Your task to perform on an android device: Show me popular videos on Youtube Image 0: 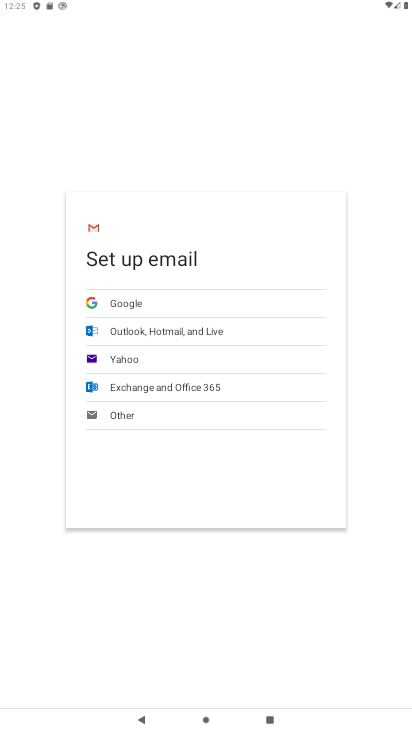
Step 0: press home button
Your task to perform on an android device: Show me popular videos on Youtube Image 1: 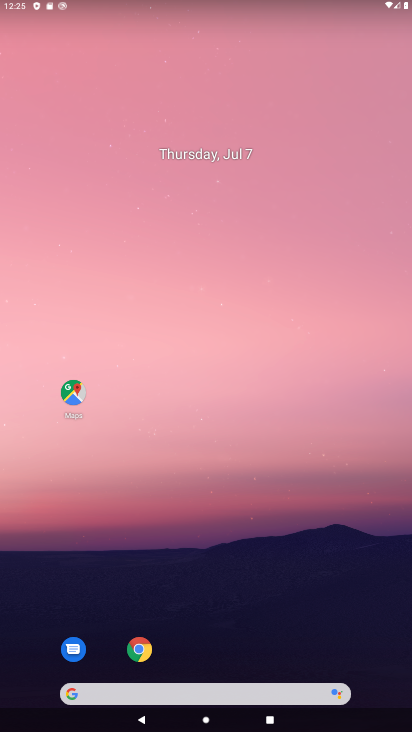
Step 1: drag from (193, 629) to (126, 139)
Your task to perform on an android device: Show me popular videos on Youtube Image 2: 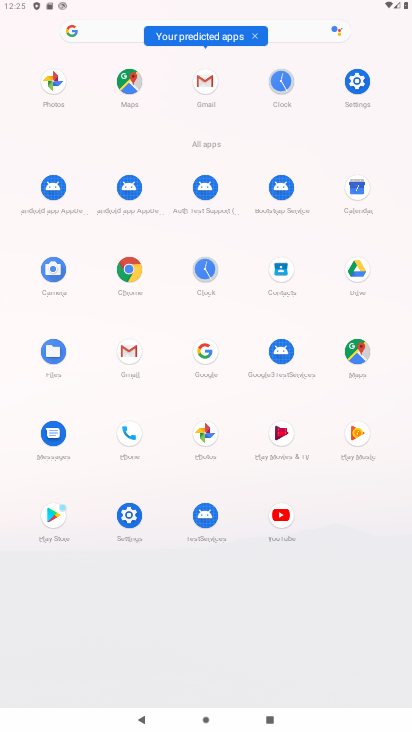
Step 2: click (282, 517)
Your task to perform on an android device: Show me popular videos on Youtube Image 3: 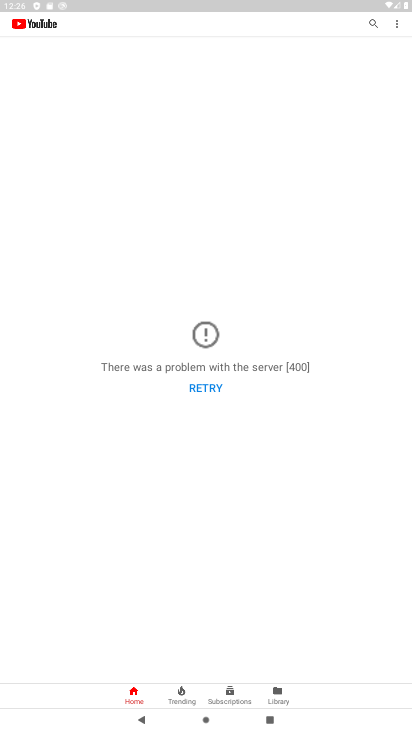
Step 3: click (192, 699)
Your task to perform on an android device: Show me popular videos on Youtube Image 4: 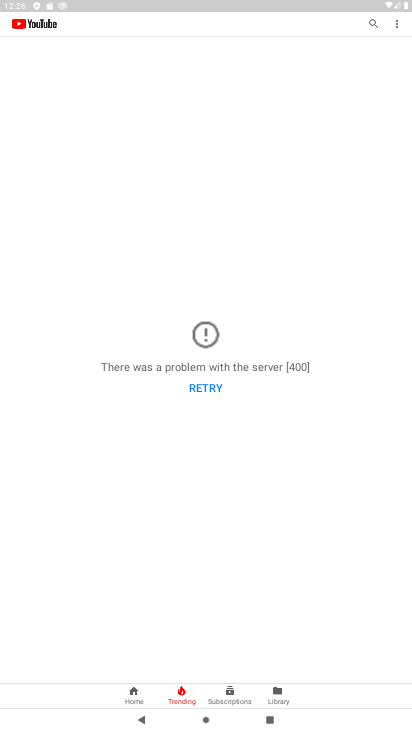
Step 4: task complete